Your task to perform on an android device: Go to Android settings Image 0: 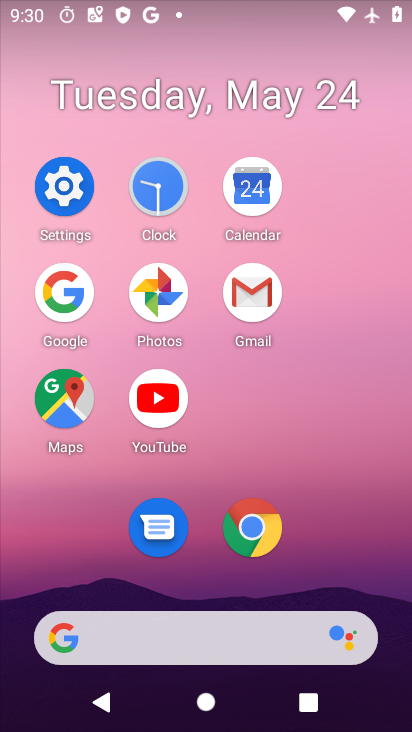
Step 0: click (64, 209)
Your task to perform on an android device: Go to Android settings Image 1: 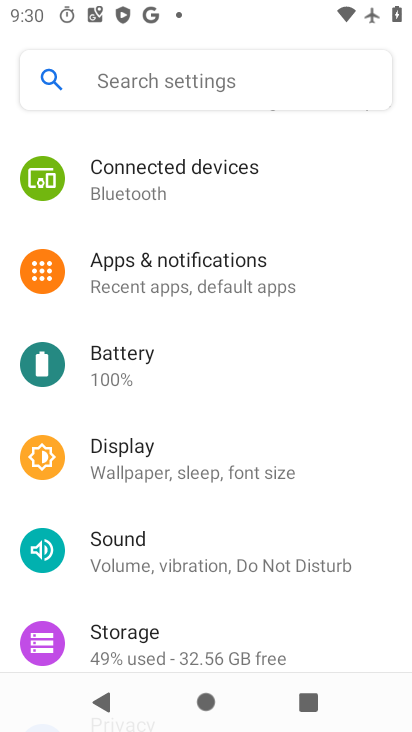
Step 1: task complete